Your task to perform on an android device: Is it going to rain this weekend? Image 0: 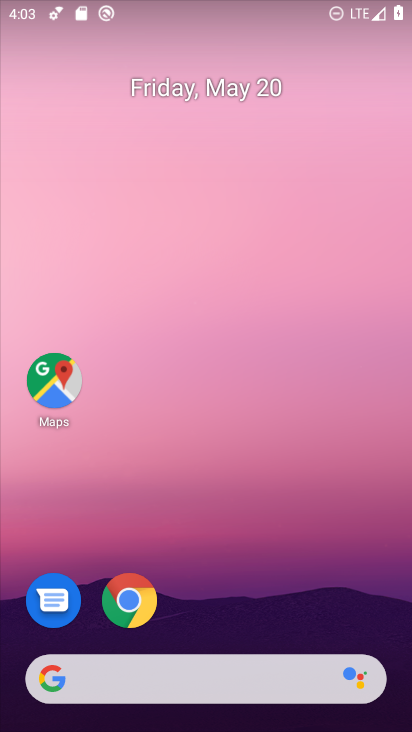
Step 0: drag from (236, 561) to (249, 57)
Your task to perform on an android device: Is it going to rain this weekend? Image 1: 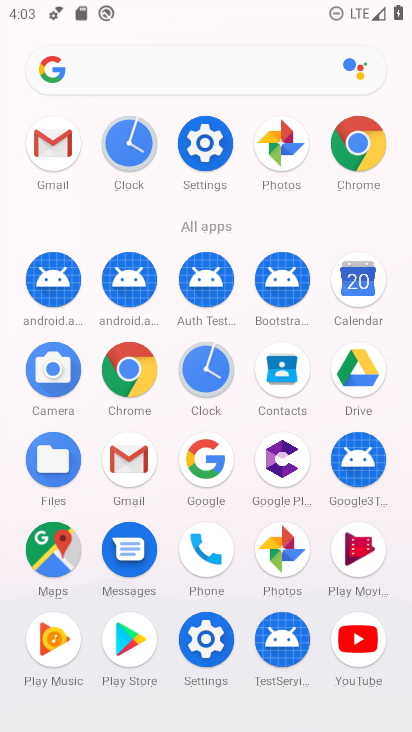
Step 1: click (143, 66)
Your task to perform on an android device: Is it going to rain this weekend? Image 2: 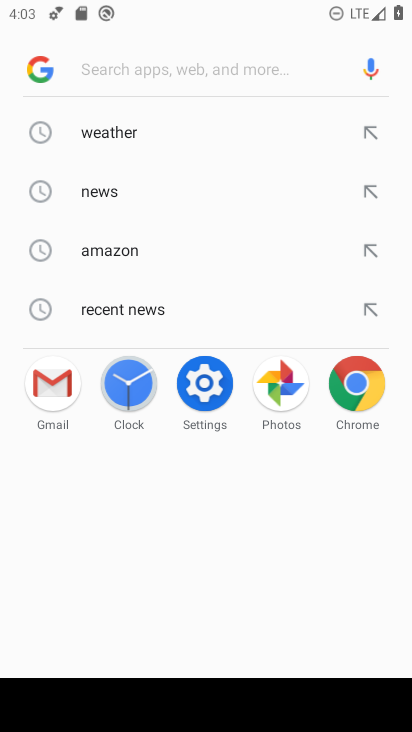
Step 2: click (130, 143)
Your task to perform on an android device: Is it going to rain this weekend? Image 3: 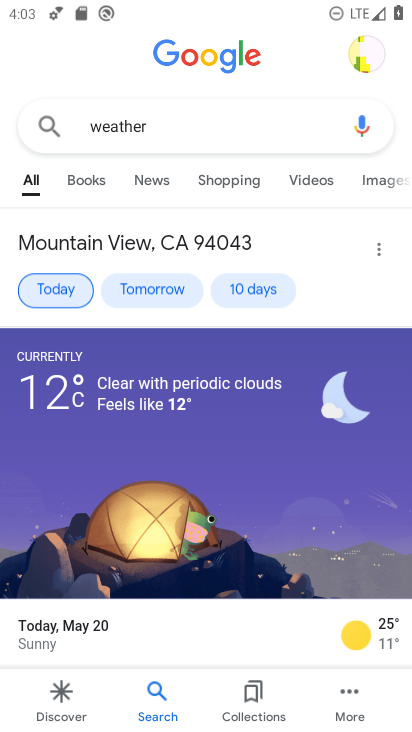
Step 3: click (252, 277)
Your task to perform on an android device: Is it going to rain this weekend? Image 4: 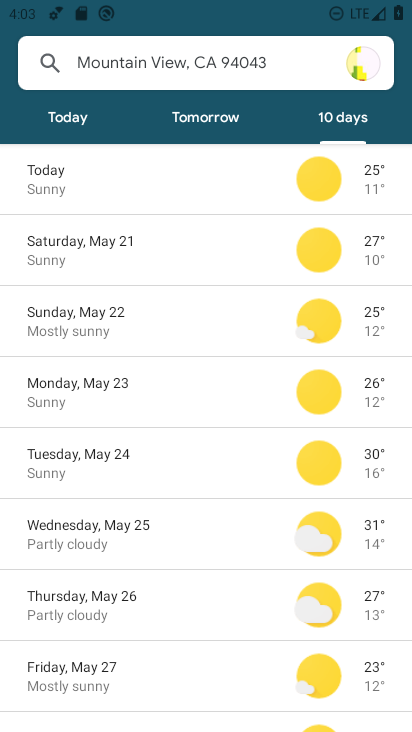
Step 4: task complete